Your task to perform on an android device: open chrome and create a bookmark for the current page Image 0: 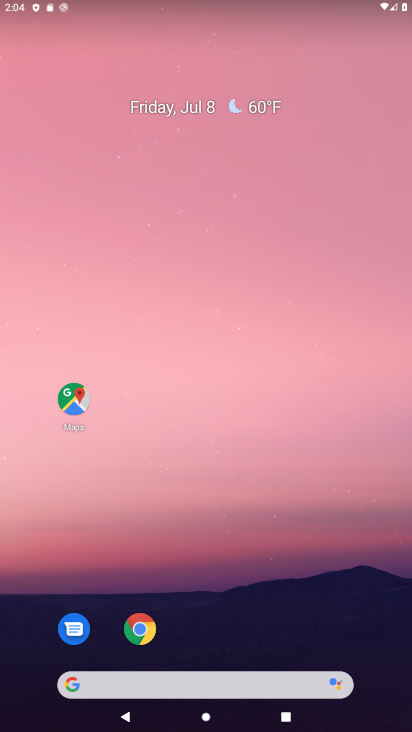
Step 0: click (136, 637)
Your task to perform on an android device: open chrome and create a bookmark for the current page Image 1: 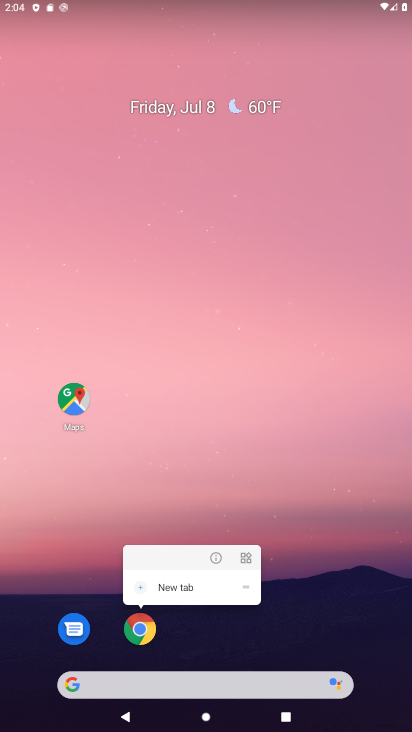
Step 1: click (139, 611)
Your task to perform on an android device: open chrome and create a bookmark for the current page Image 2: 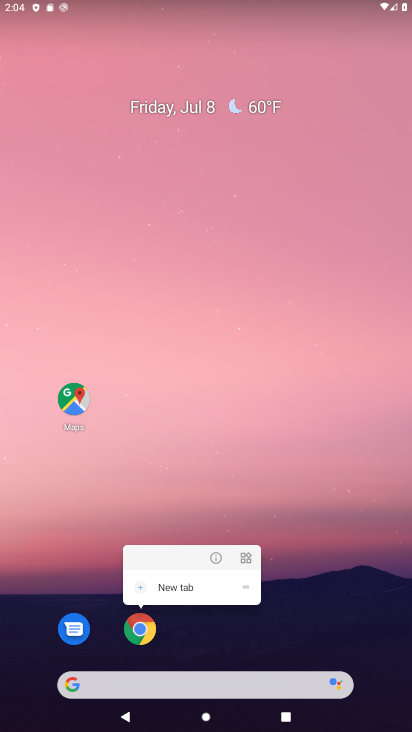
Step 2: click (143, 646)
Your task to perform on an android device: open chrome and create a bookmark for the current page Image 3: 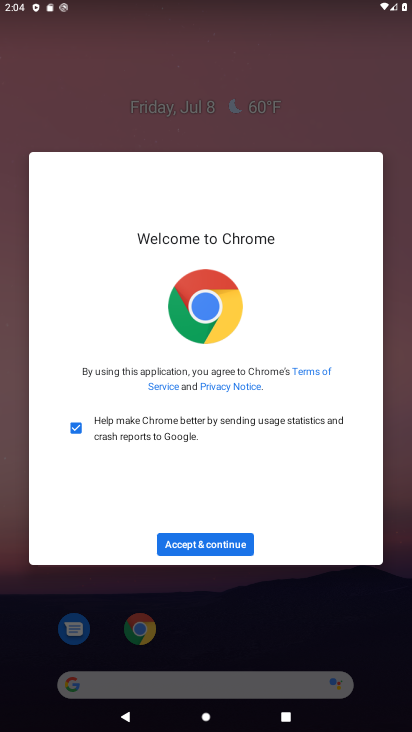
Step 3: click (244, 541)
Your task to perform on an android device: open chrome and create a bookmark for the current page Image 4: 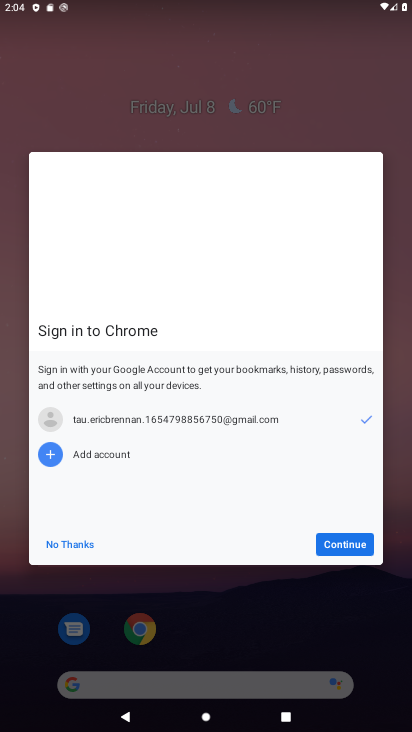
Step 4: click (329, 540)
Your task to perform on an android device: open chrome and create a bookmark for the current page Image 5: 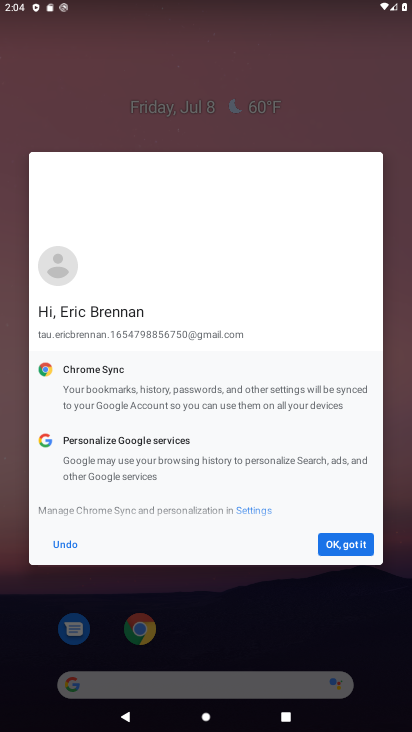
Step 5: click (329, 540)
Your task to perform on an android device: open chrome and create a bookmark for the current page Image 6: 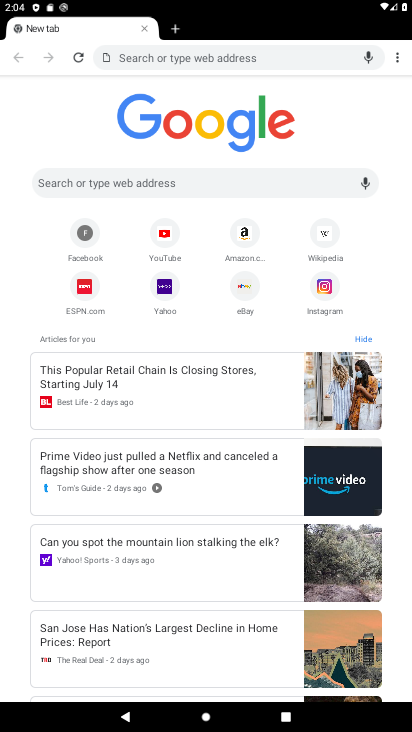
Step 6: click (130, 478)
Your task to perform on an android device: open chrome and create a bookmark for the current page Image 7: 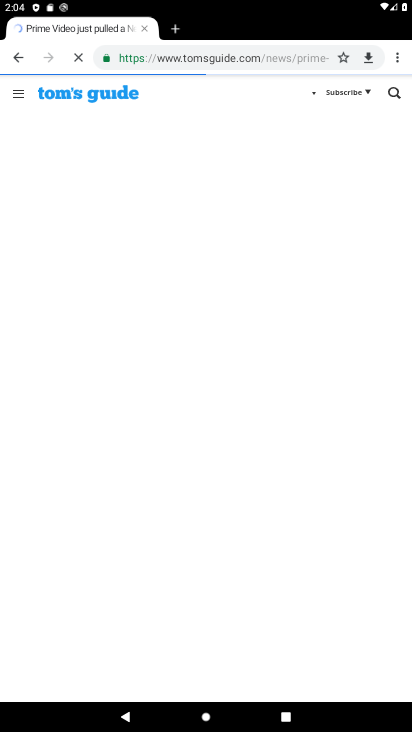
Step 7: click (397, 59)
Your task to perform on an android device: open chrome and create a bookmark for the current page Image 8: 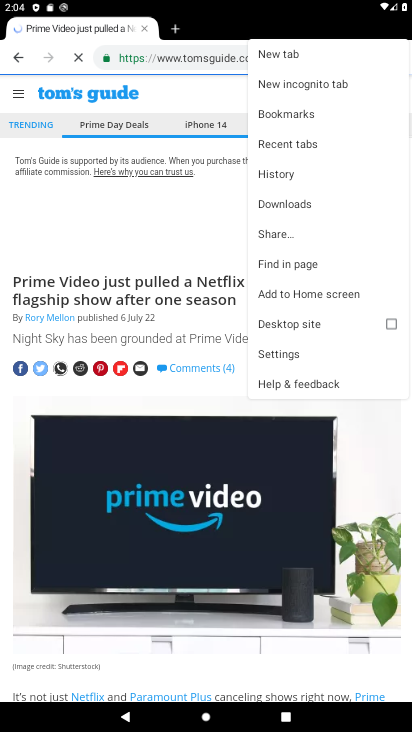
Step 8: click (188, 70)
Your task to perform on an android device: open chrome and create a bookmark for the current page Image 9: 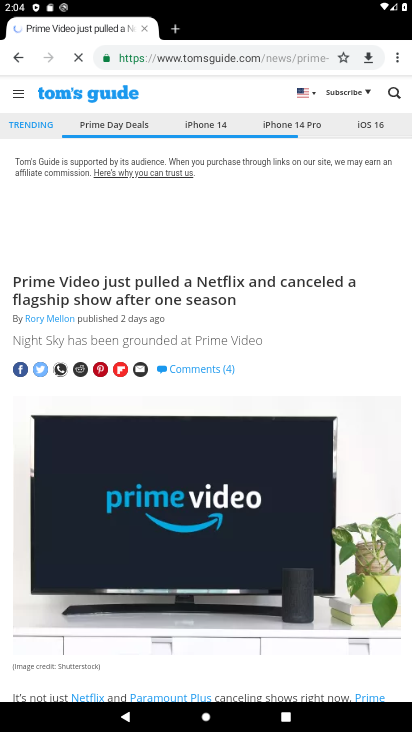
Step 9: click (342, 61)
Your task to perform on an android device: open chrome and create a bookmark for the current page Image 10: 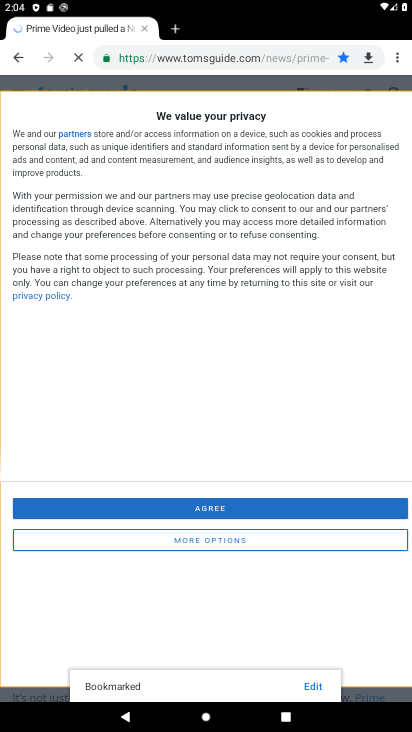
Step 10: task complete